Your task to perform on an android device: search for starred emails in the gmail app Image 0: 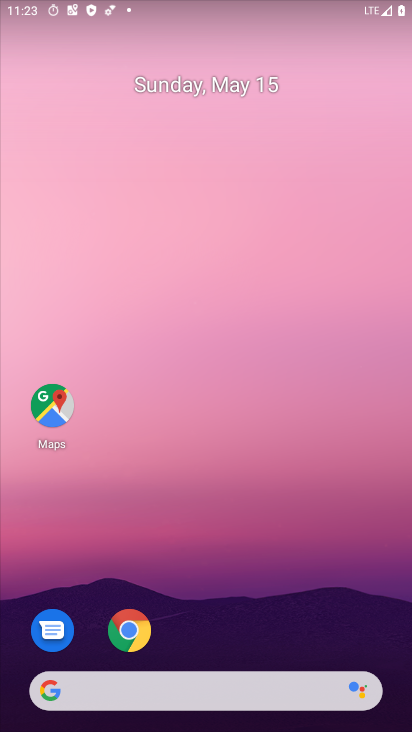
Step 0: drag from (180, 616) to (273, 2)
Your task to perform on an android device: search for starred emails in the gmail app Image 1: 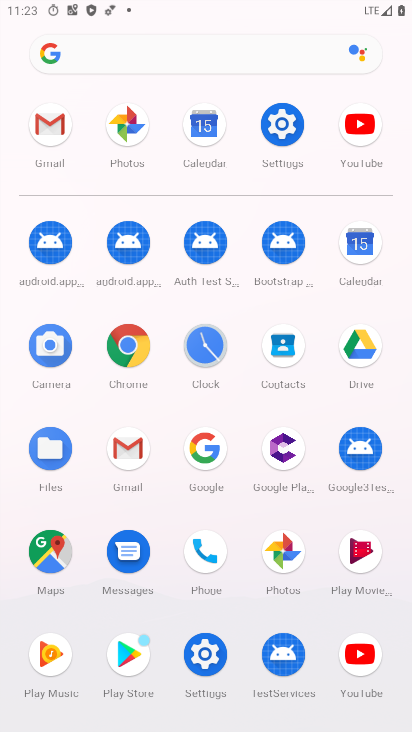
Step 1: click (45, 120)
Your task to perform on an android device: search for starred emails in the gmail app Image 2: 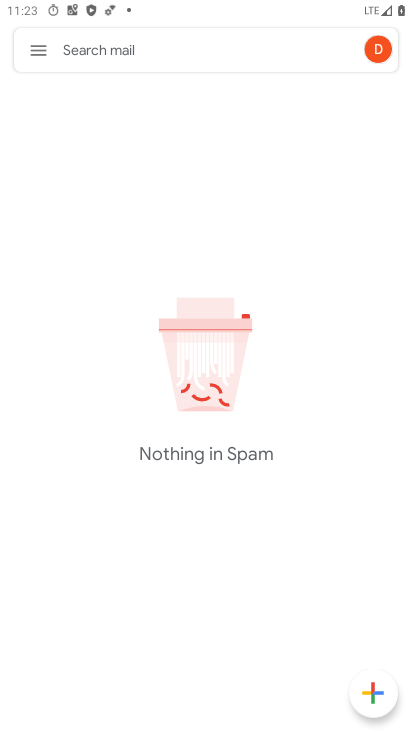
Step 2: click (29, 44)
Your task to perform on an android device: search for starred emails in the gmail app Image 3: 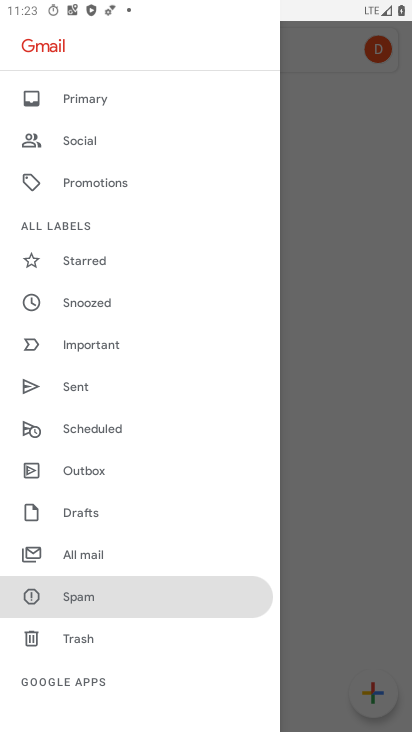
Step 3: drag from (117, 640) to (100, 609)
Your task to perform on an android device: search for starred emails in the gmail app Image 4: 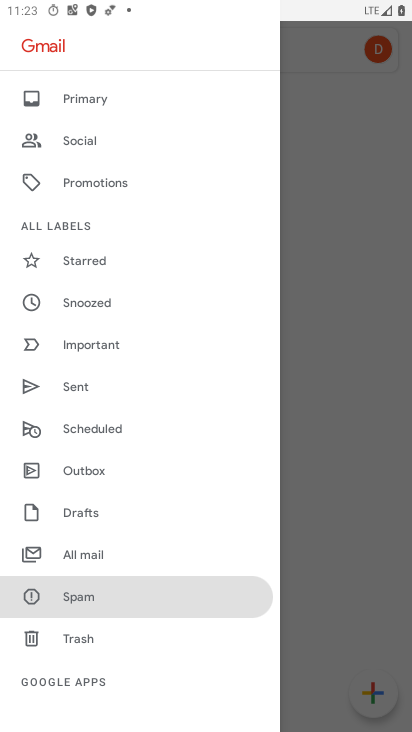
Step 4: click (76, 259)
Your task to perform on an android device: search for starred emails in the gmail app Image 5: 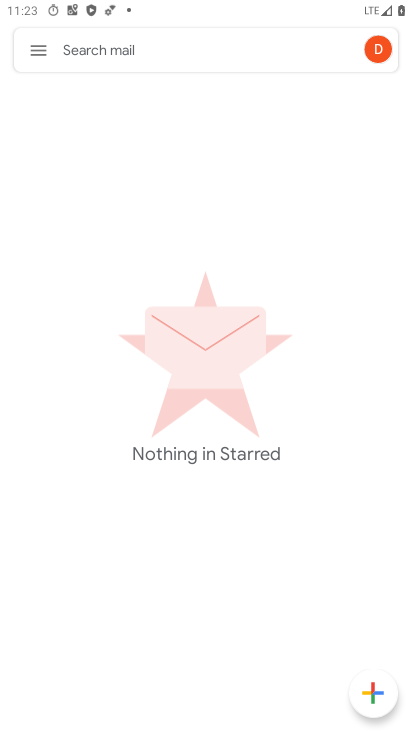
Step 5: task complete